Your task to perform on an android device: Go to CNN.com Image 0: 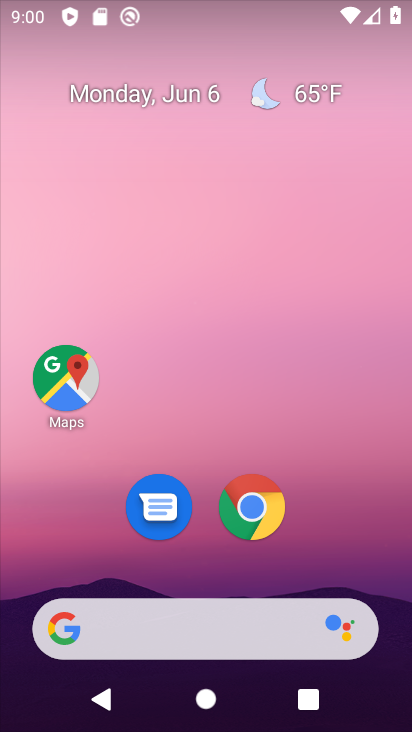
Step 0: click (233, 501)
Your task to perform on an android device: Go to CNN.com Image 1: 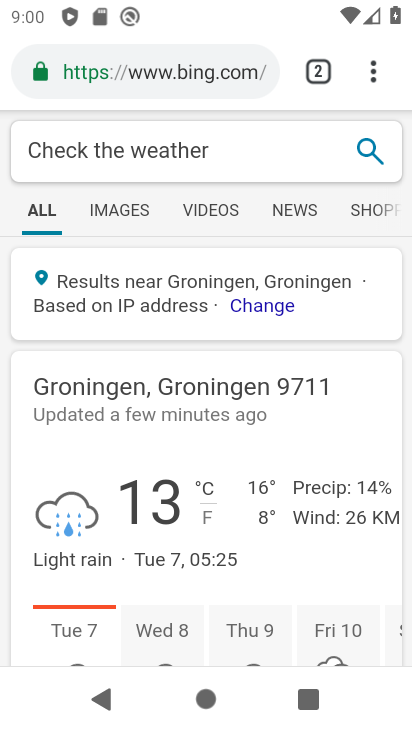
Step 1: click (367, 67)
Your task to perform on an android device: Go to CNN.com Image 2: 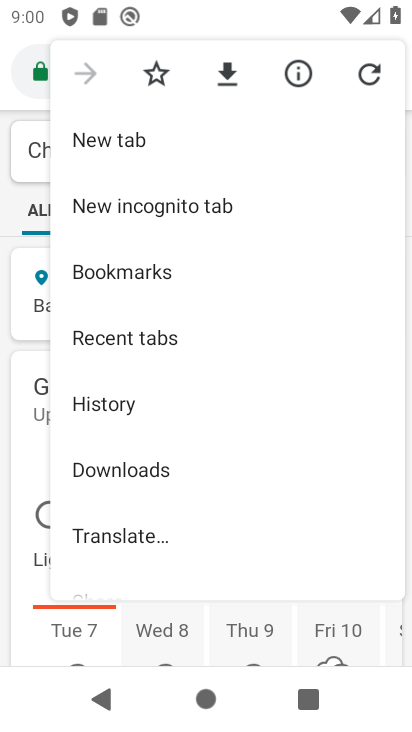
Step 2: click (138, 144)
Your task to perform on an android device: Go to CNN.com Image 3: 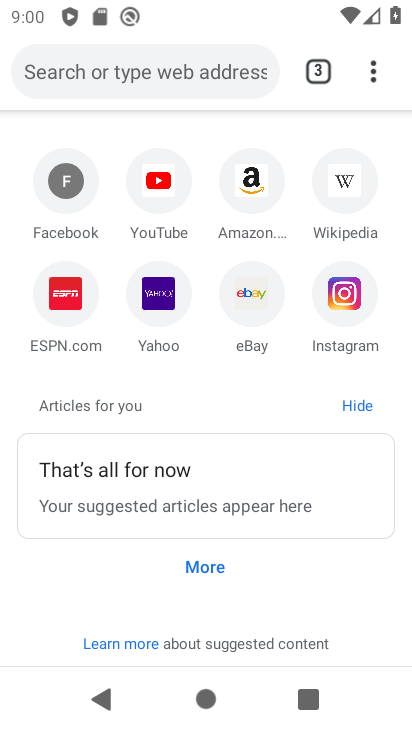
Step 3: click (204, 59)
Your task to perform on an android device: Go to CNN.com Image 4: 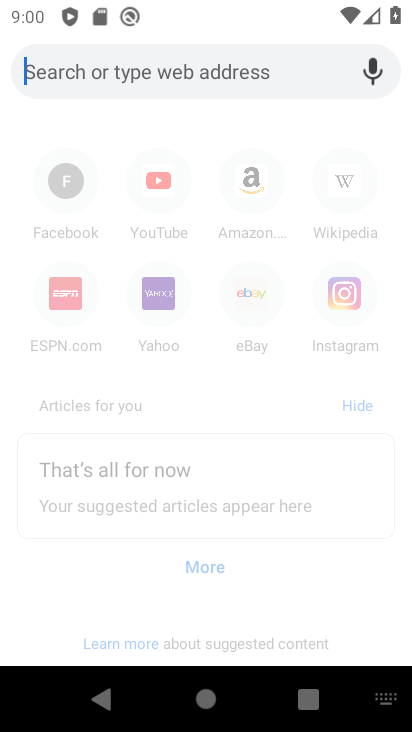
Step 4: type "CNN.com"
Your task to perform on an android device: Go to CNN.com Image 5: 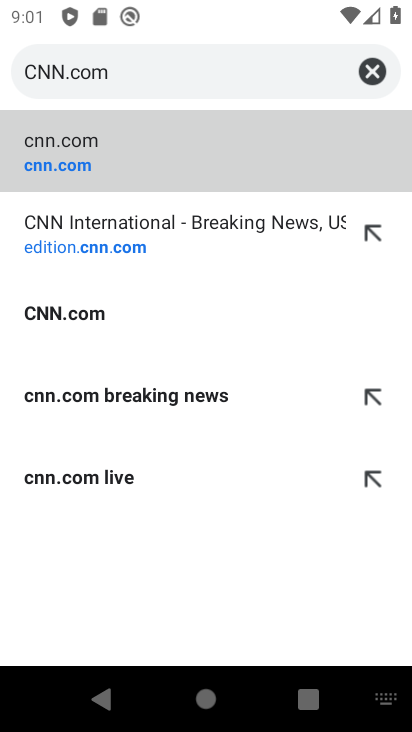
Step 5: click (208, 146)
Your task to perform on an android device: Go to CNN.com Image 6: 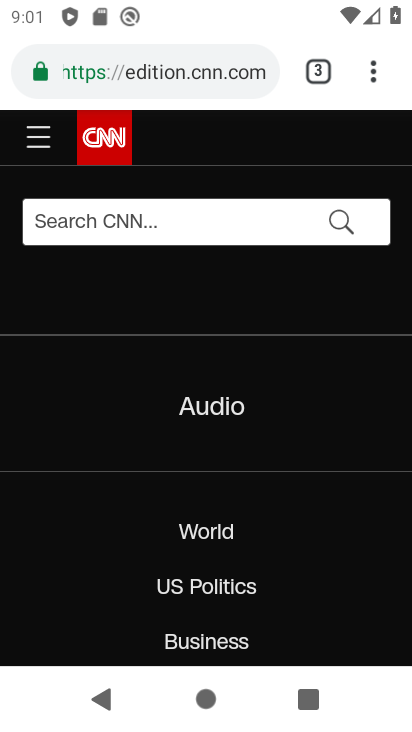
Step 6: task complete